Your task to perform on an android device: Open accessibility settings Image 0: 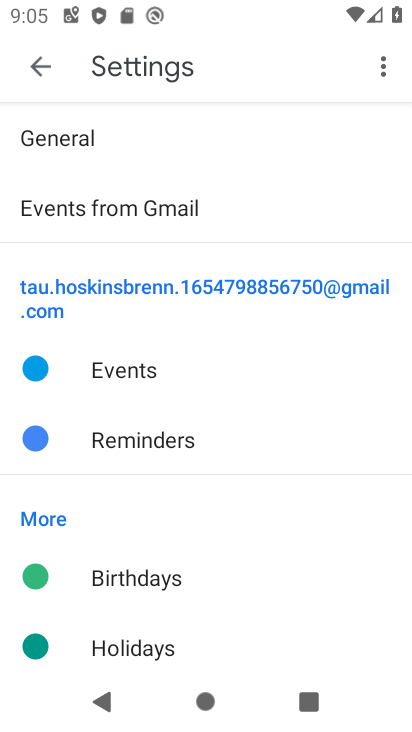
Step 0: press home button
Your task to perform on an android device: Open accessibility settings Image 1: 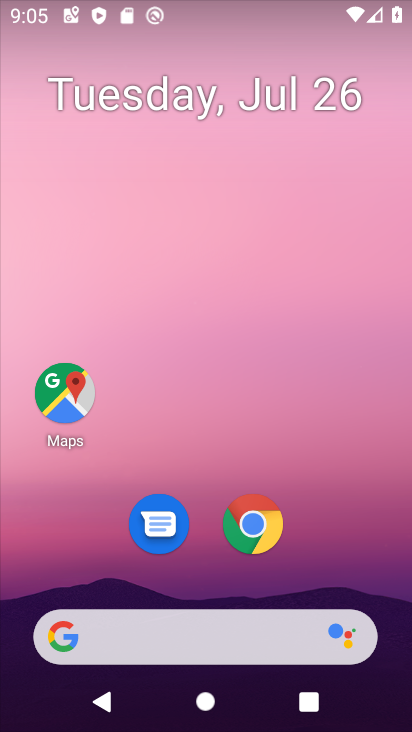
Step 1: drag from (158, 597) to (290, 29)
Your task to perform on an android device: Open accessibility settings Image 2: 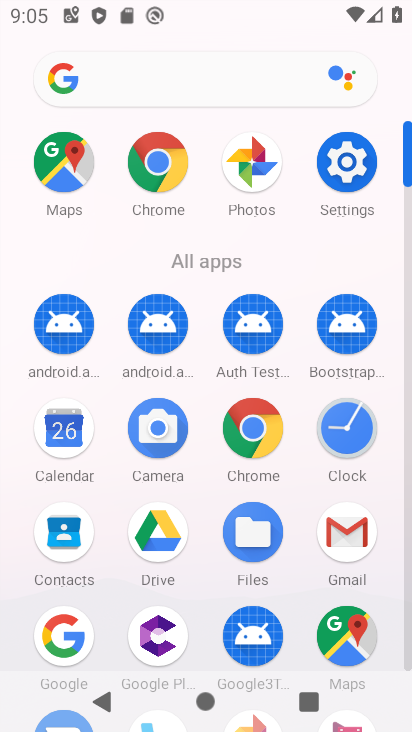
Step 2: click (335, 172)
Your task to perform on an android device: Open accessibility settings Image 3: 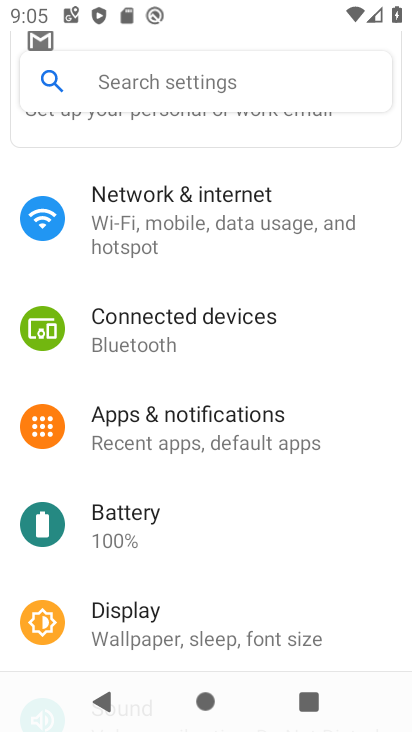
Step 3: drag from (216, 578) to (314, 89)
Your task to perform on an android device: Open accessibility settings Image 4: 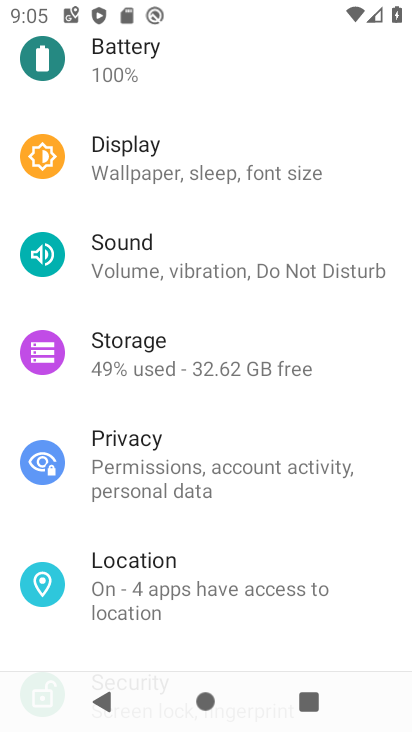
Step 4: drag from (218, 539) to (307, 116)
Your task to perform on an android device: Open accessibility settings Image 5: 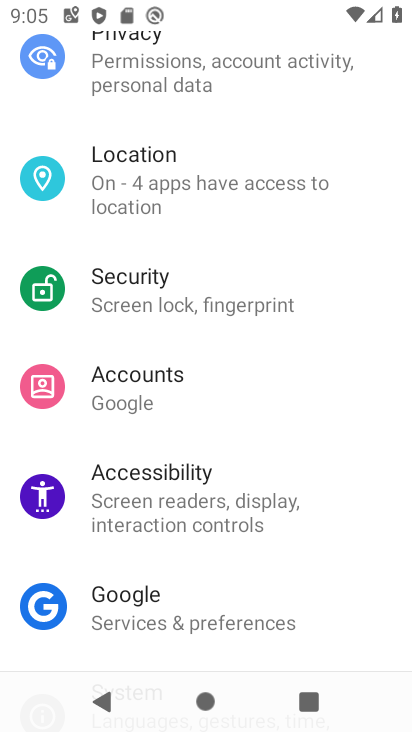
Step 5: click (186, 491)
Your task to perform on an android device: Open accessibility settings Image 6: 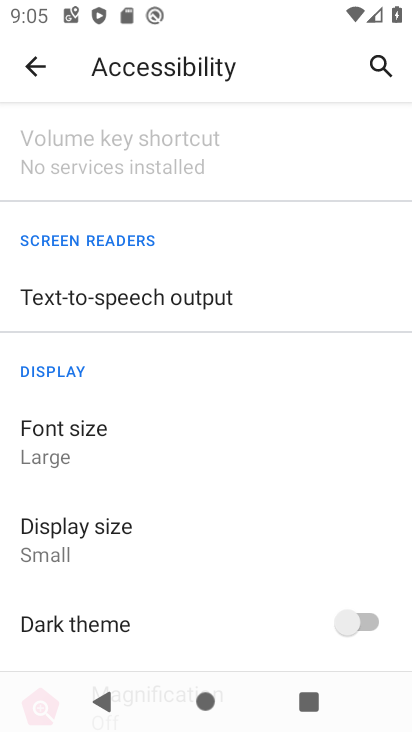
Step 6: task complete